Your task to perform on an android device: Set the phone to "Do not disturb". Image 0: 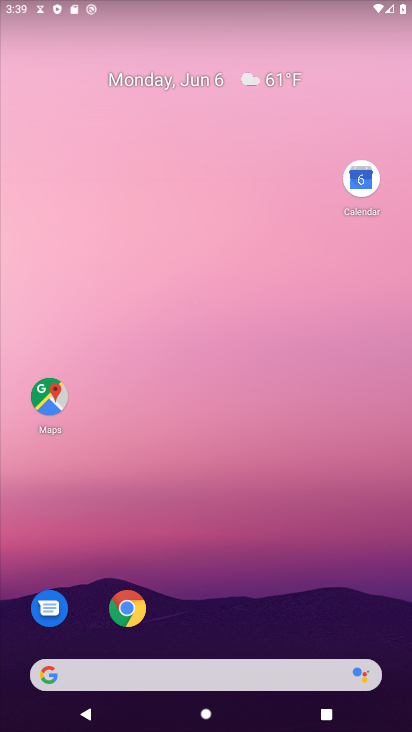
Step 0: drag from (220, 597) to (263, 22)
Your task to perform on an android device: Set the phone to "Do not disturb". Image 1: 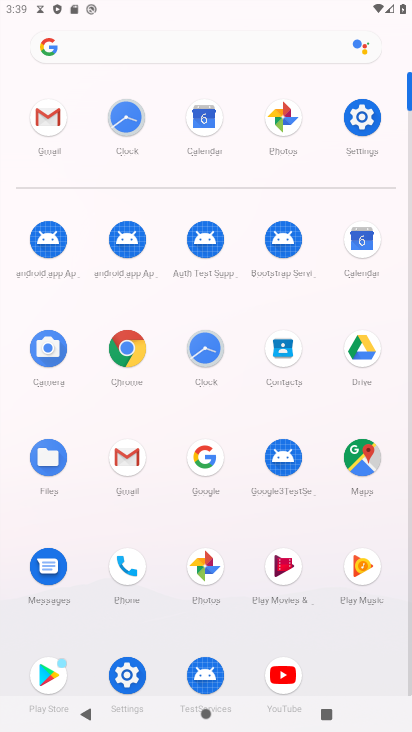
Step 1: click (123, 672)
Your task to perform on an android device: Set the phone to "Do not disturb". Image 2: 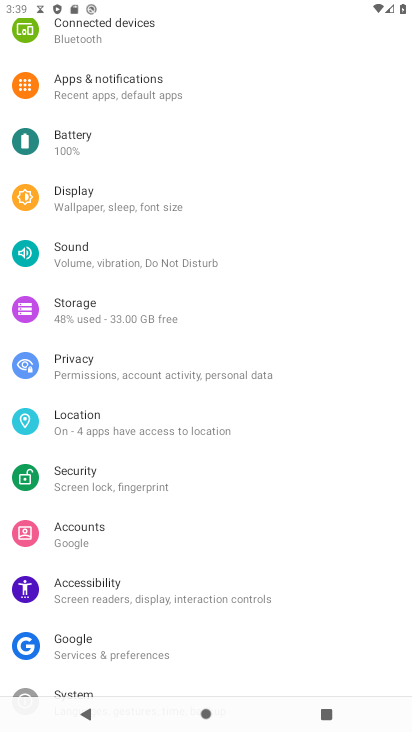
Step 2: click (144, 253)
Your task to perform on an android device: Set the phone to "Do not disturb". Image 3: 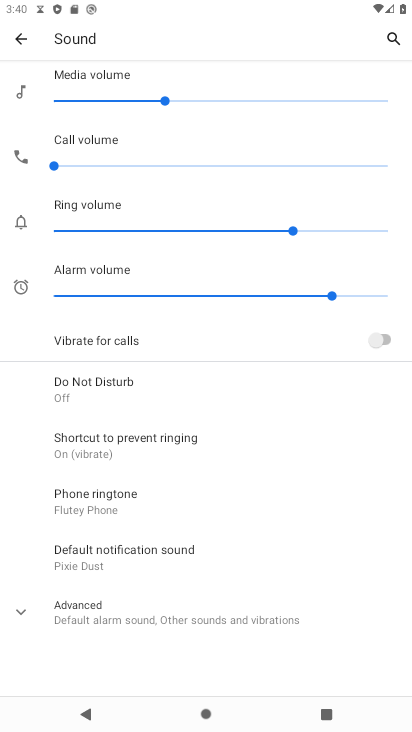
Step 3: click (111, 393)
Your task to perform on an android device: Set the phone to "Do not disturb". Image 4: 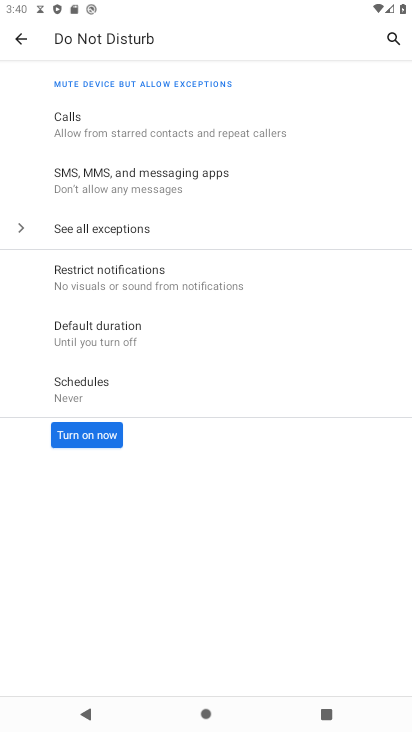
Step 4: click (99, 434)
Your task to perform on an android device: Set the phone to "Do not disturb". Image 5: 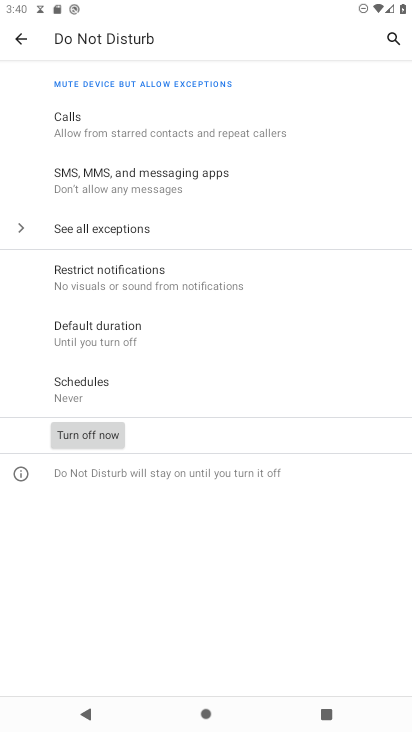
Step 5: task complete